Your task to perform on an android device: Turn on the flashlight Image 0: 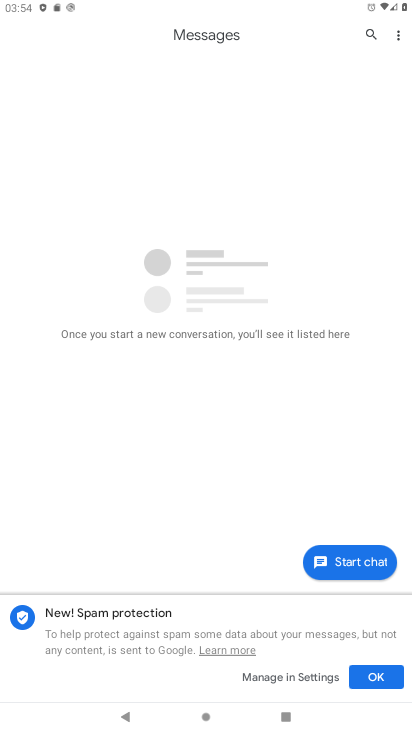
Step 0: press home button
Your task to perform on an android device: Turn on the flashlight Image 1: 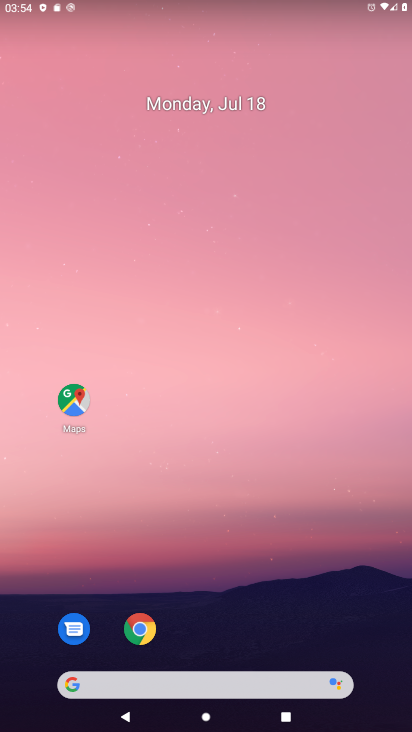
Step 1: drag from (392, 714) to (228, 119)
Your task to perform on an android device: Turn on the flashlight Image 2: 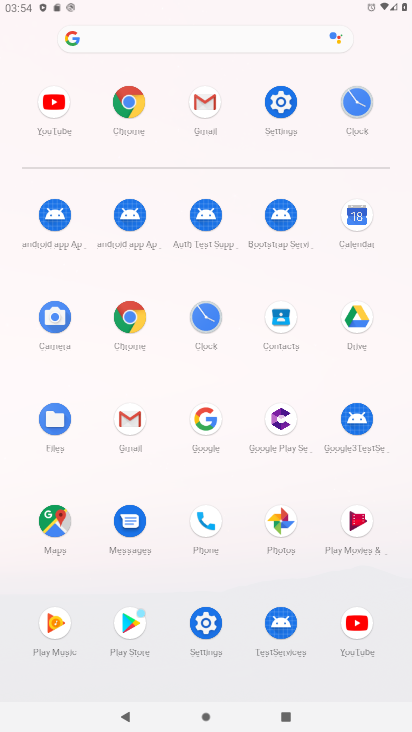
Step 2: click (268, 111)
Your task to perform on an android device: Turn on the flashlight Image 3: 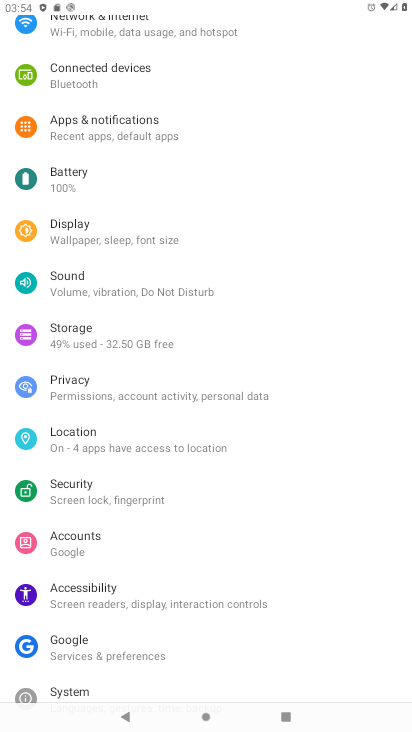
Step 3: click (64, 235)
Your task to perform on an android device: Turn on the flashlight Image 4: 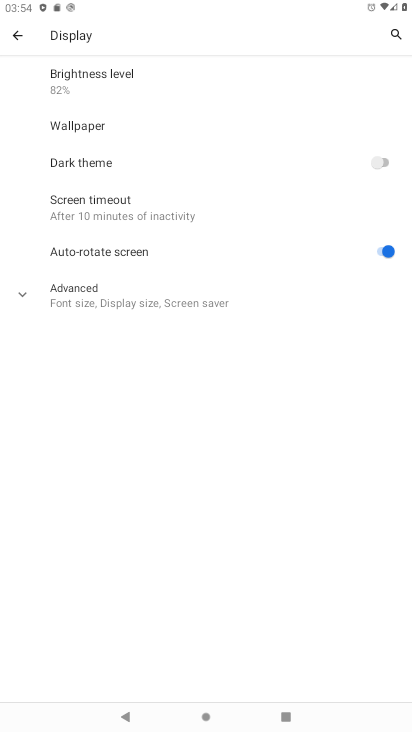
Step 4: click (12, 299)
Your task to perform on an android device: Turn on the flashlight Image 5: 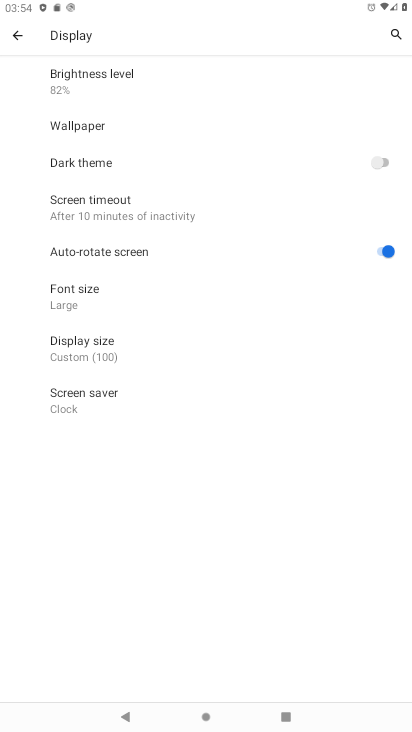
Step 5: task complete